Your task to perform on an android device: Open Chrome and go to the settings page Image 0: 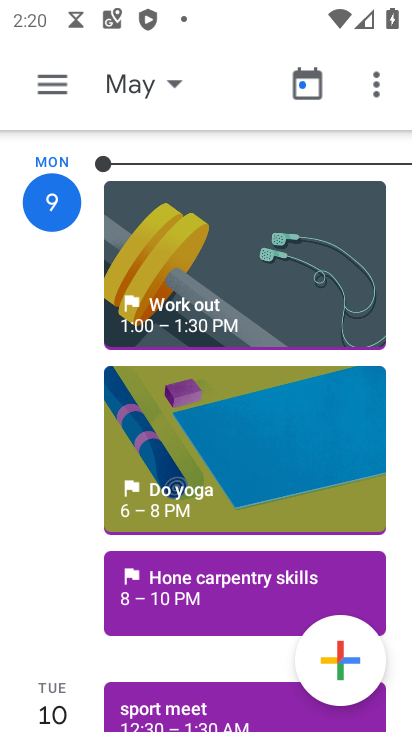
Step 0: press home button
Your task to perform on an android device: Open Chrome and go to the settings page Image 1: 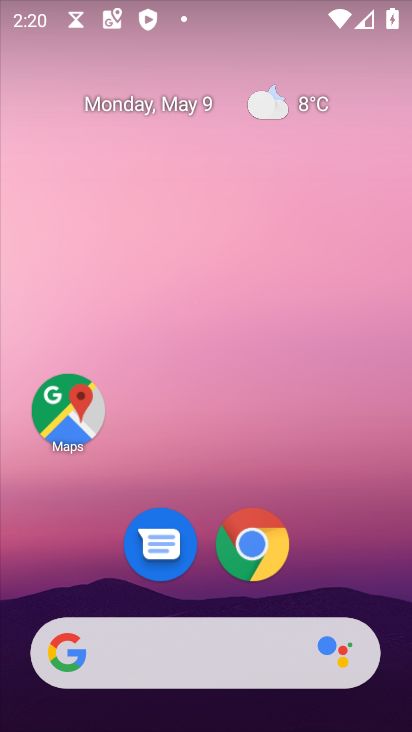
Step 1: click (268, 548)
Your task to perform on an android device: Open Chrome and go to the settings page Image 2: 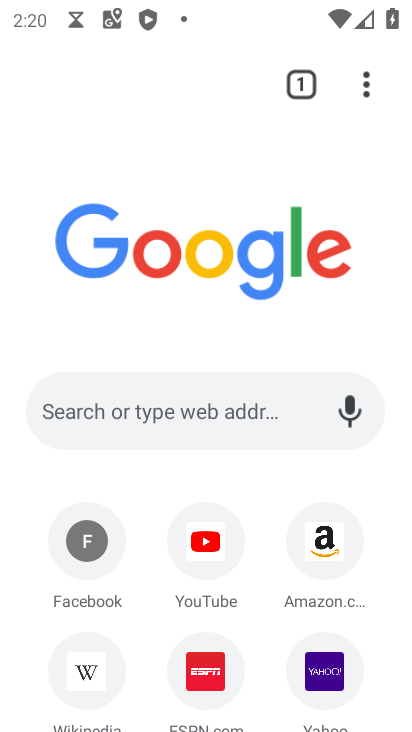
Step 2: task complete